Your task to perform on an android device: Search for Italian restaurants on Maps Image 0: 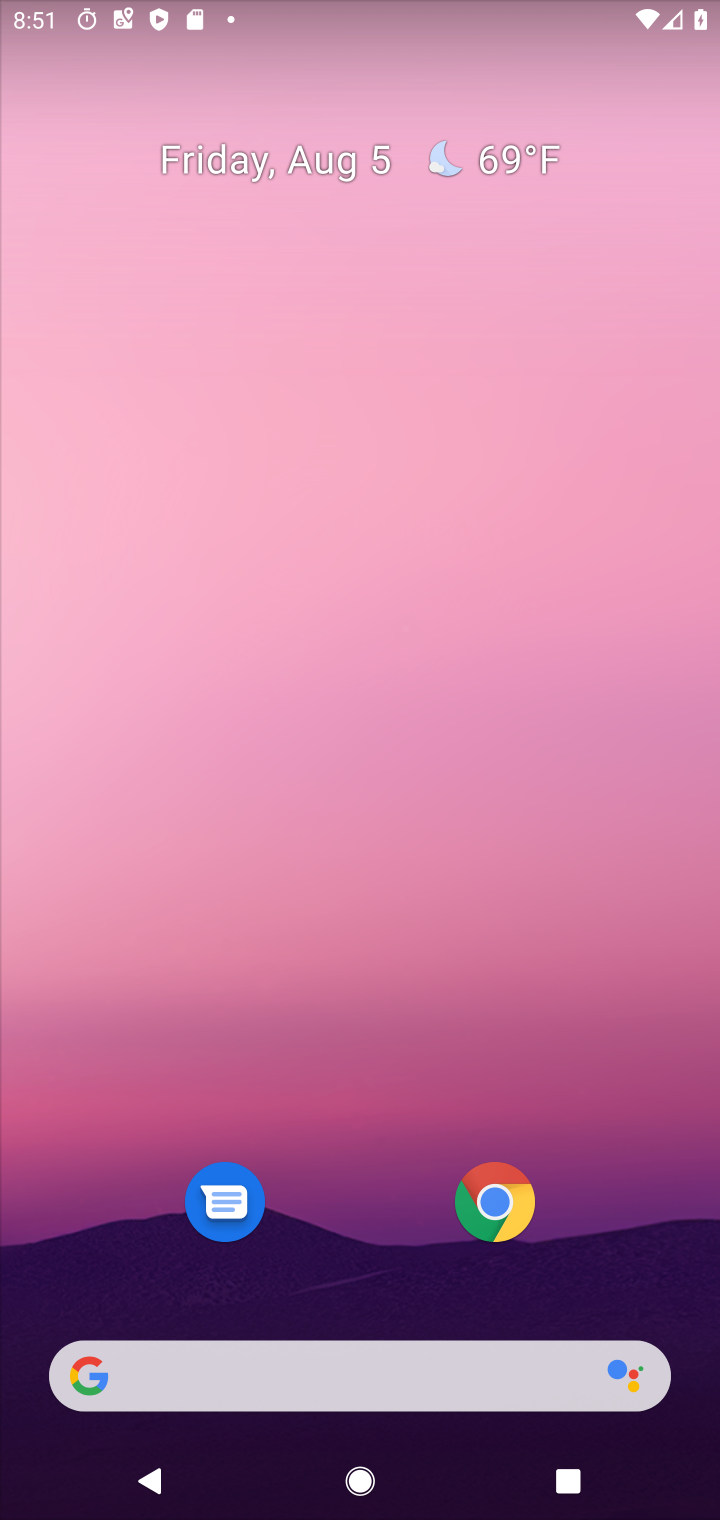
Step 0: drag from (372, 1136) to (259, 366)
Your task to perform on an android device: Search for Italian restaurants on Maps Image 1: 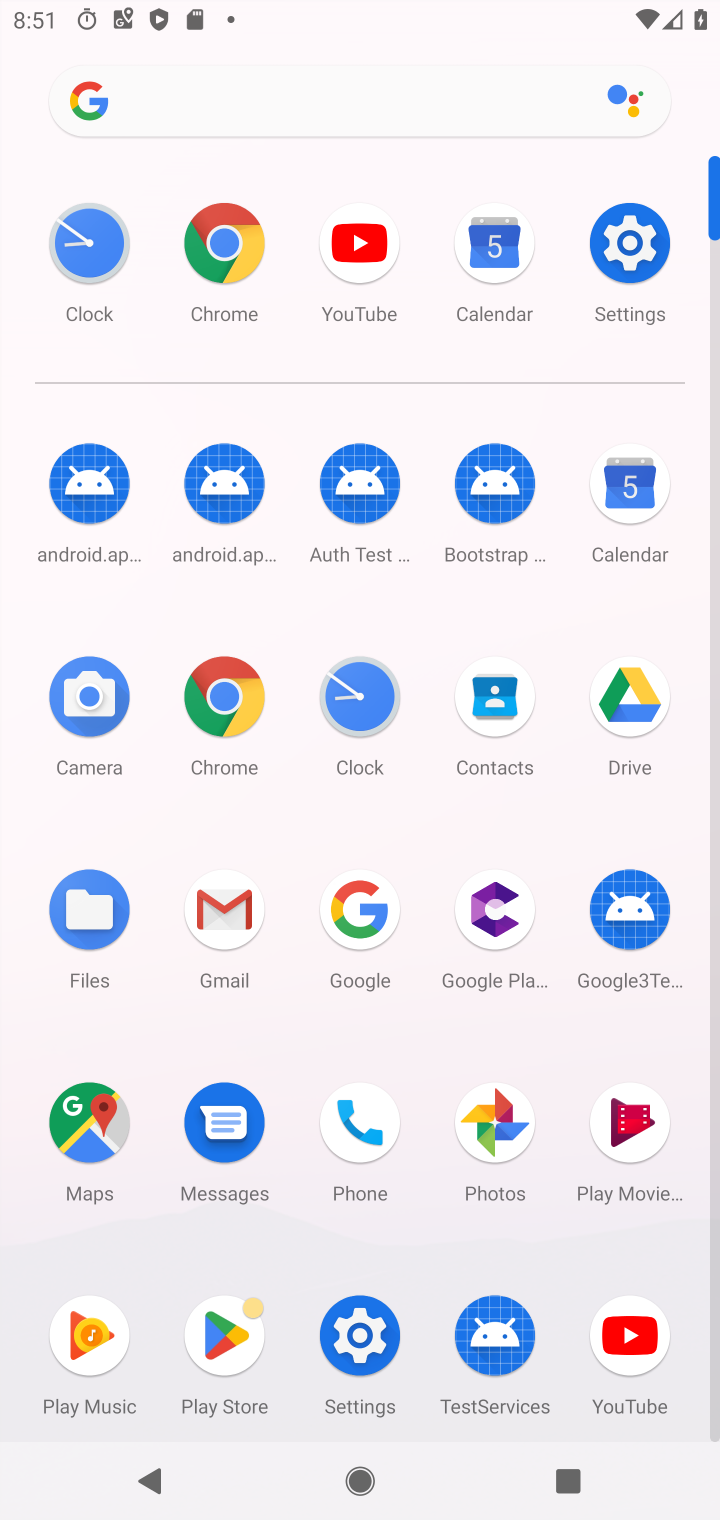
Step 1: click (85, 1133)
Your task to perform on an android device: Search for Italian restaurants on Maps Image 2: 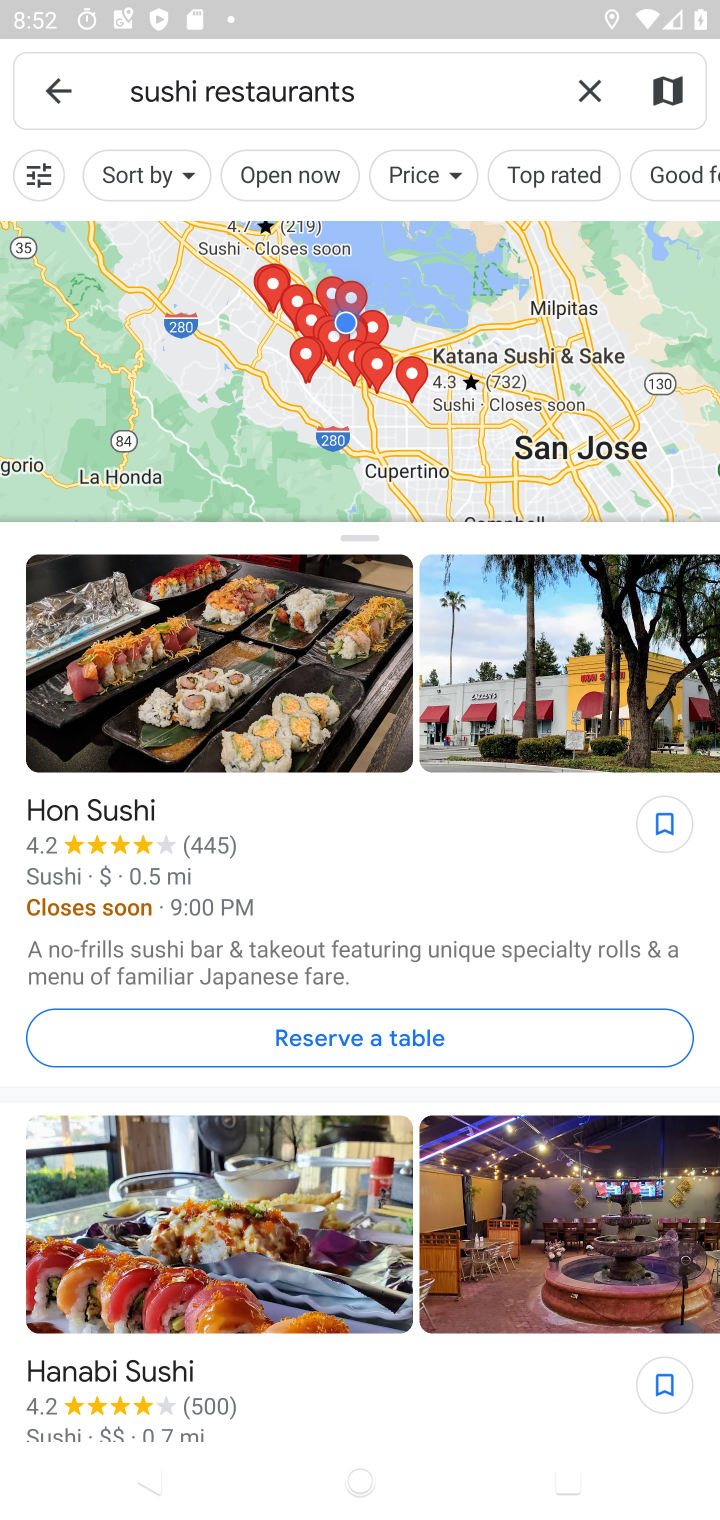
Step 2: click (590, 82)
Your task to perform on an android device: Search for Italian restaurants on Maps Image 3: 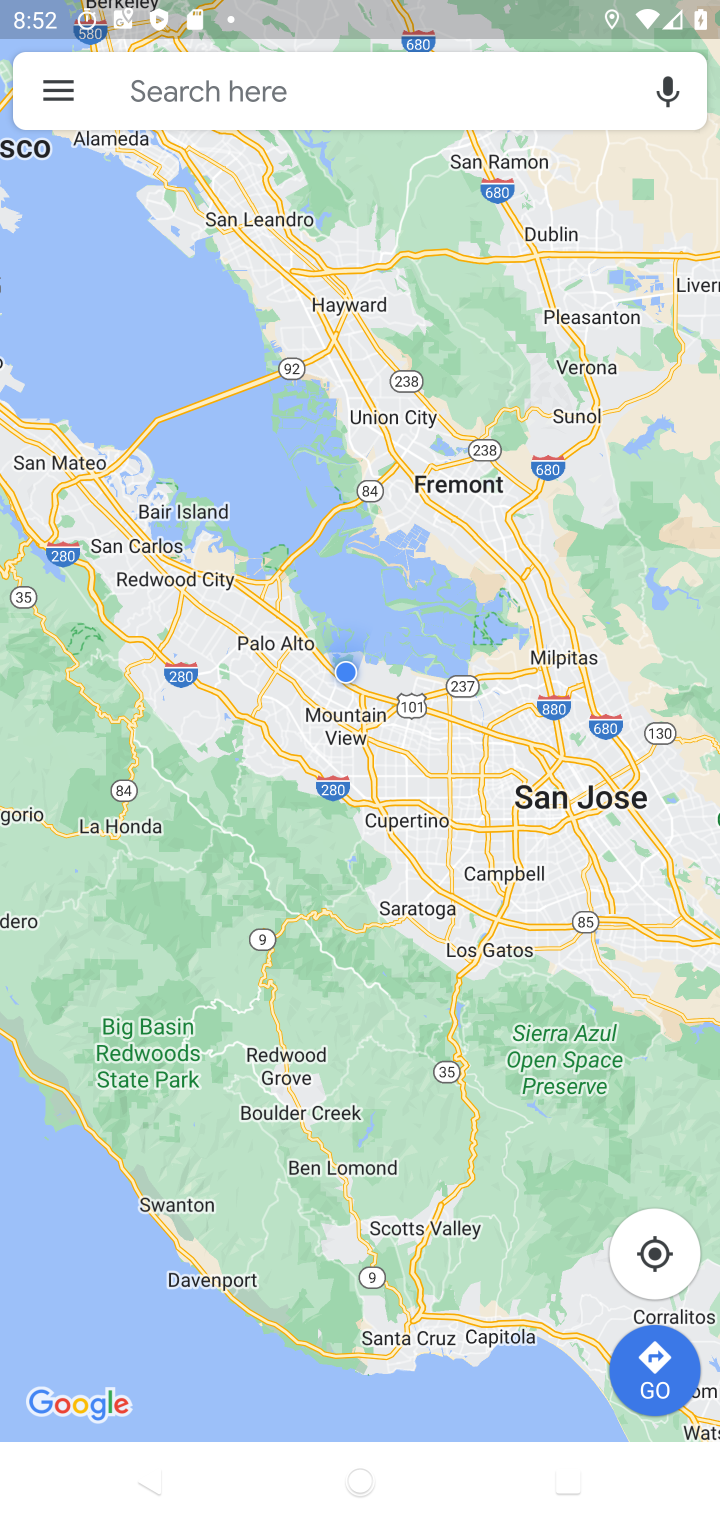
Step 3: type "italian restaurants"
Your task to perform on an android device: Search for Italian restaurants on Maps Image 4: 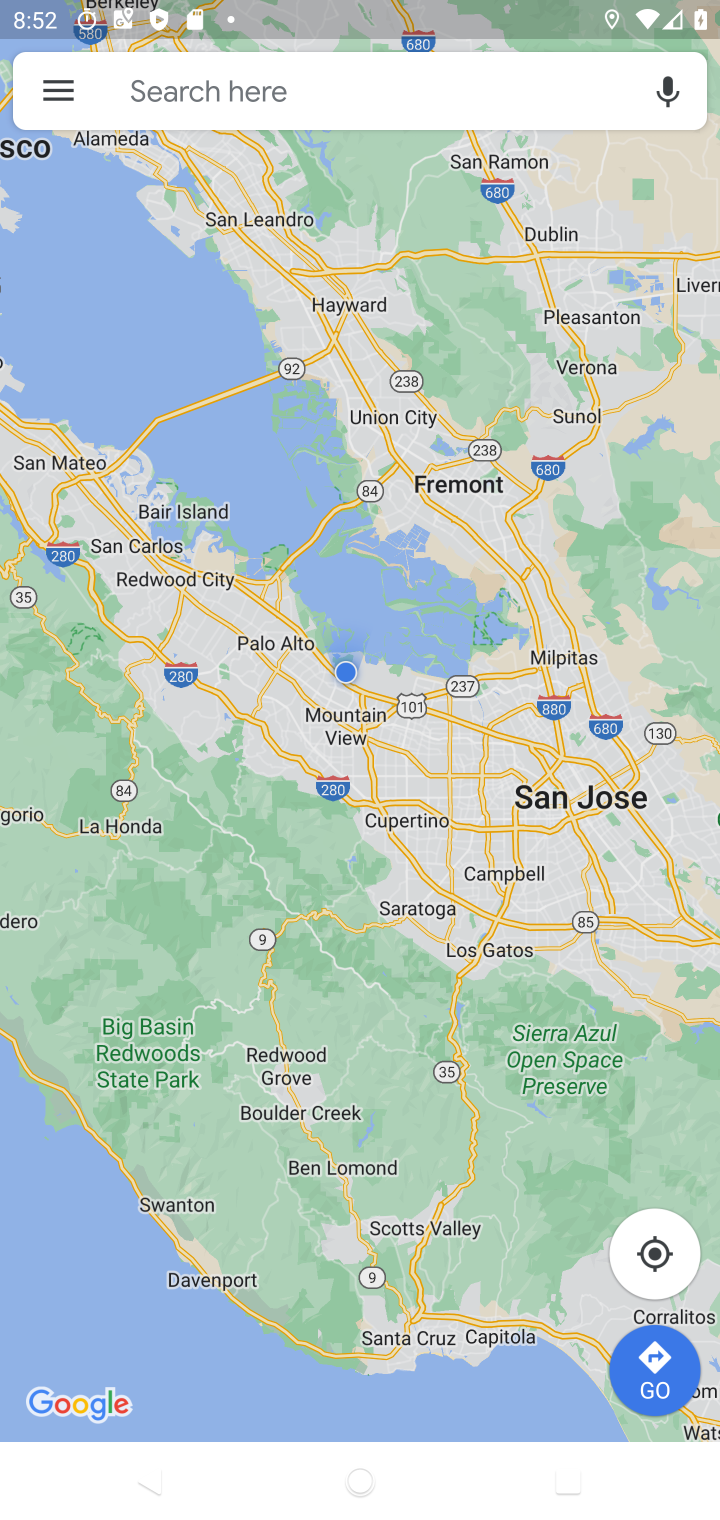
Step 4: click (482, 76)
Your task to perform on an android device: Search for Italian restaurants on Maps Image 5: 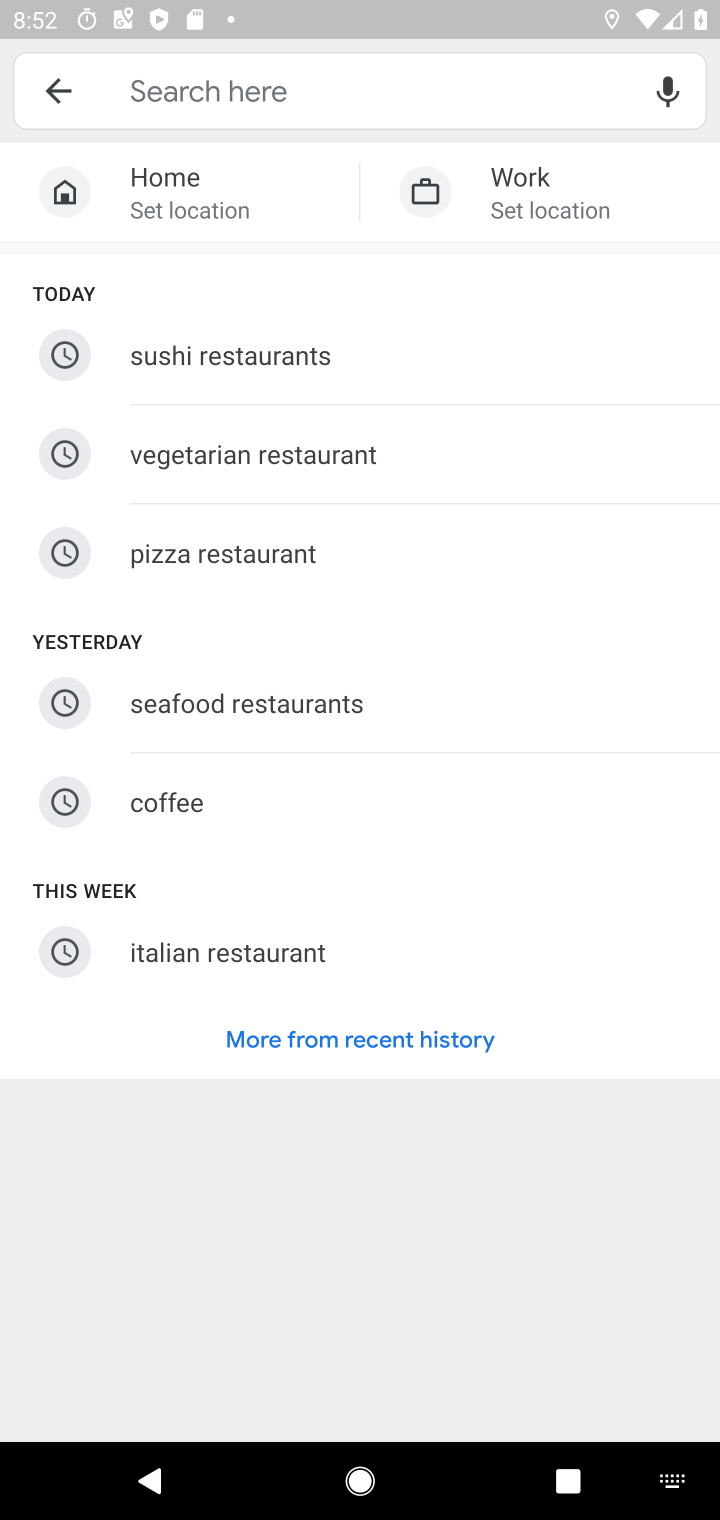
Step 5: type "italian restaurants"
Your task to perform on an android device: Search for Italian restaurants on Maps Image 6: 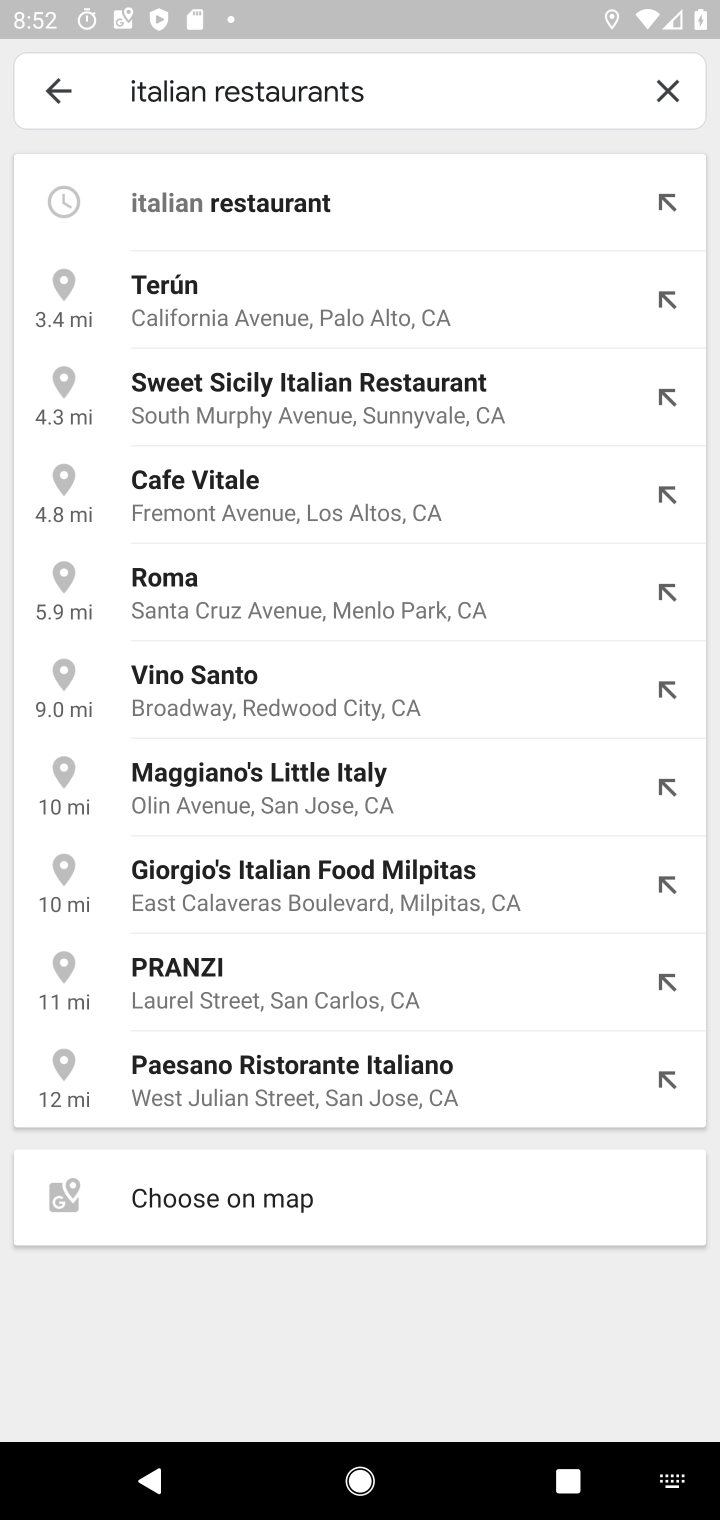
Step 6: click (510, 194)
Your task to perform on an android device: Search for Italian restaurants on Maps Image 7: 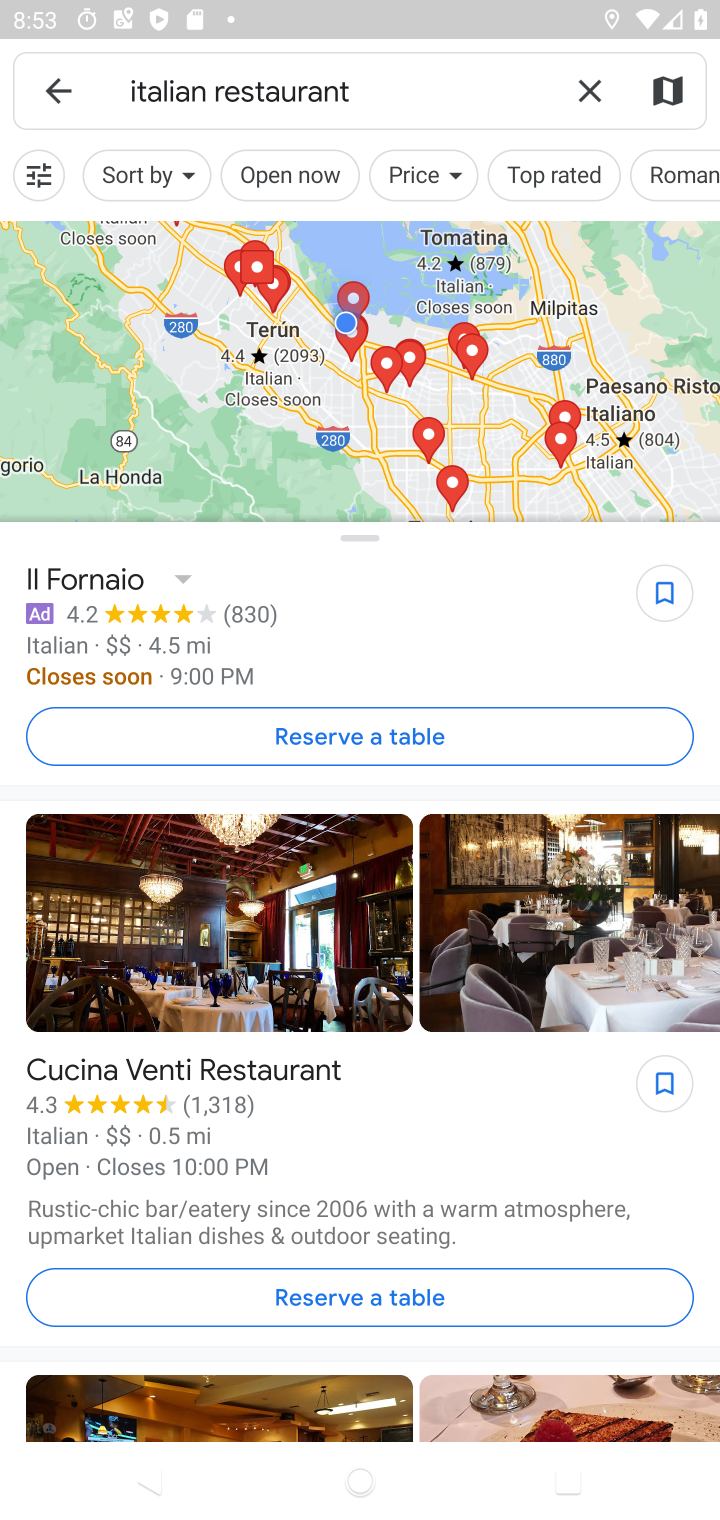
Step 7: task complete